Your task to perform on an android device: Go to privacy settings Image 0: 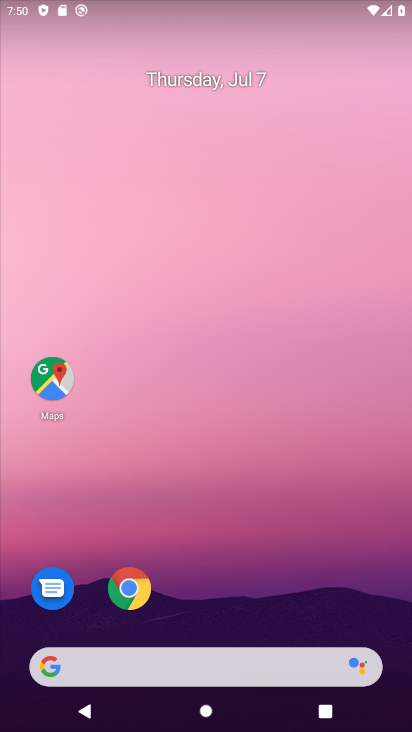
Step 0: drag from (193, 338) to (322, 0)
Your task to perform on an android device: Go to privacy settings Image 1: 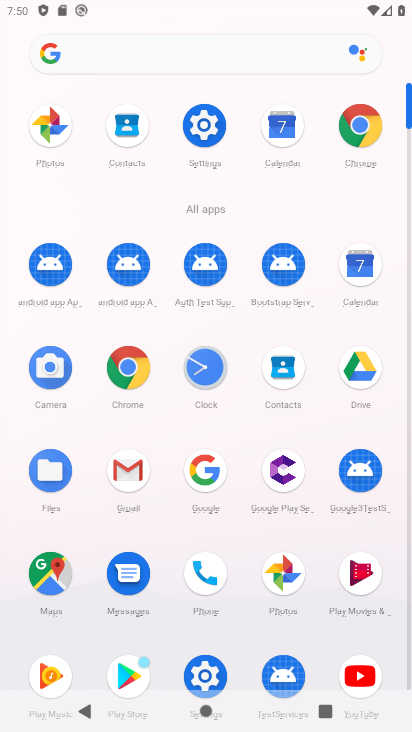
Step 1: click (205, 670)
Your task to perform on an android device: Go to privacy settings Image 2: 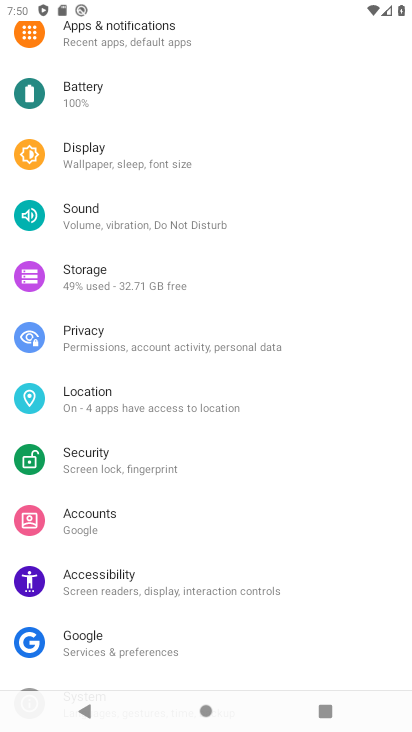
Step 2: click (119, 344)
Your task to perform on an android device: Go to privacy settings Image 3: 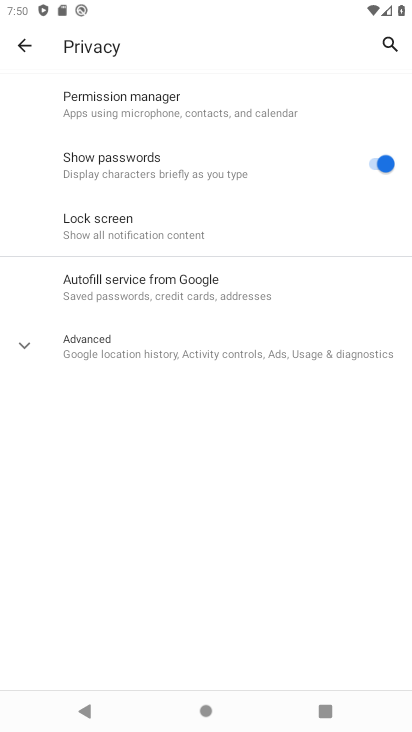
Step 3: task complete